Your task to perform on an android device: Open the web browser Image 0: 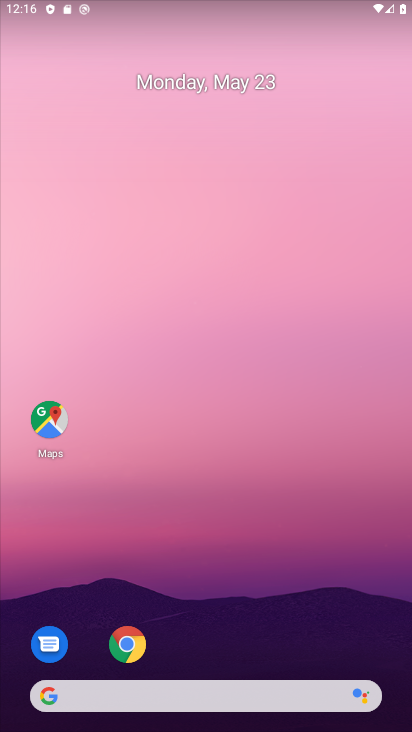
Step 0: click (131, 645)
Your task to perform on an android device: Open the web browser Image 1: 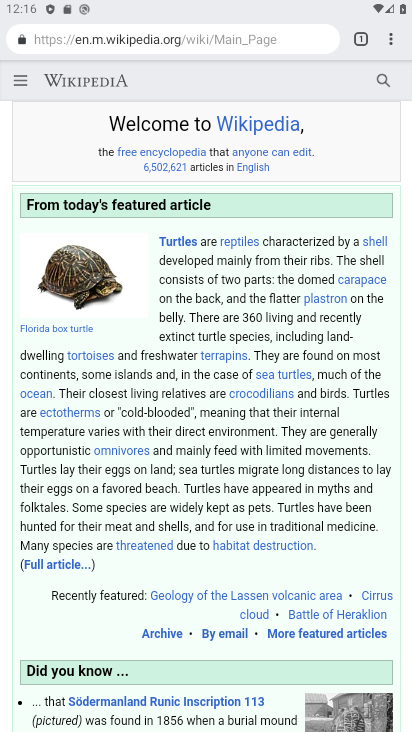
Step 1: task complete